Your task to perform on an android device: Empty the shopping cart on bestbuy.com. Search for dell xps on bestbuy.com, select the first entry, add it to the cart, then select checkout. Image 0: 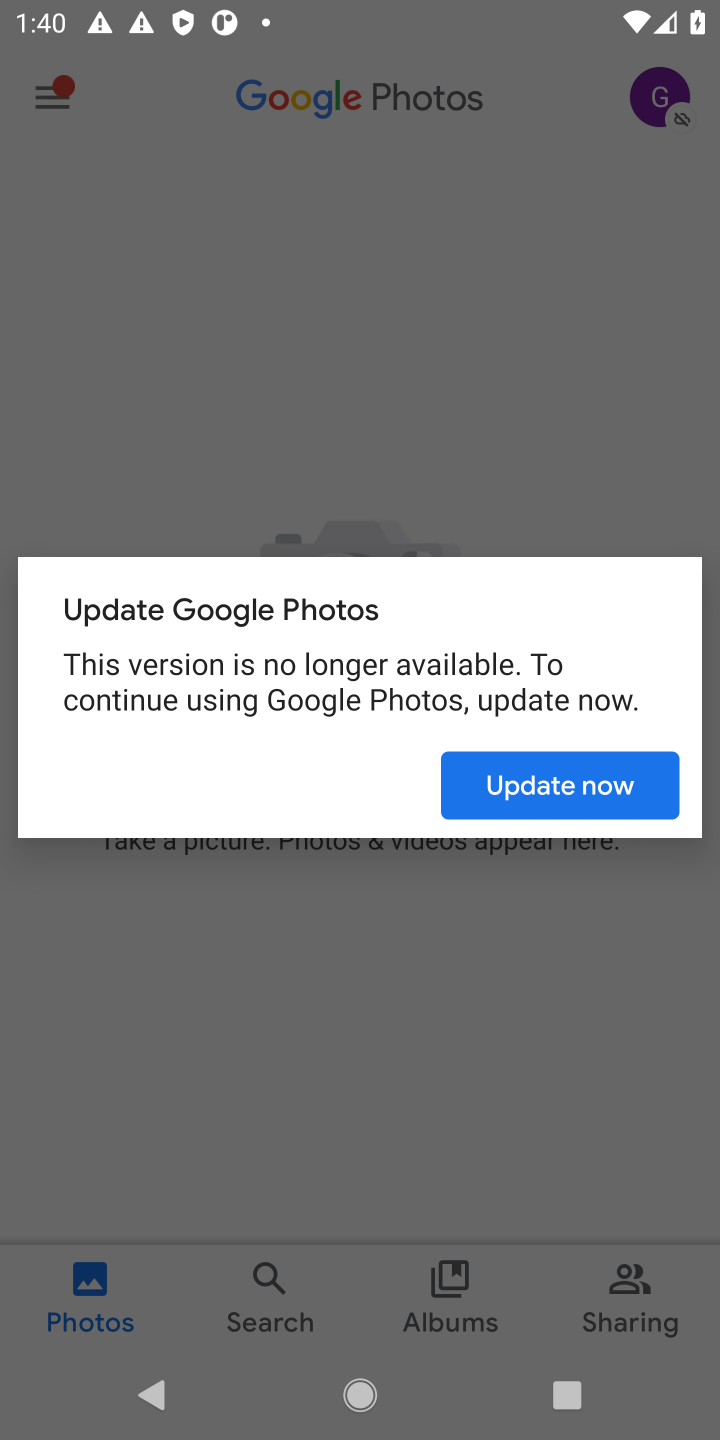
Step 0: press home button
Your task to perform on an android device: Empty the shopping cart on bestbuy.com. Search for dell xps on bestbuy.com, select the first entry, add it to the cart, then select checkout. Image 1: 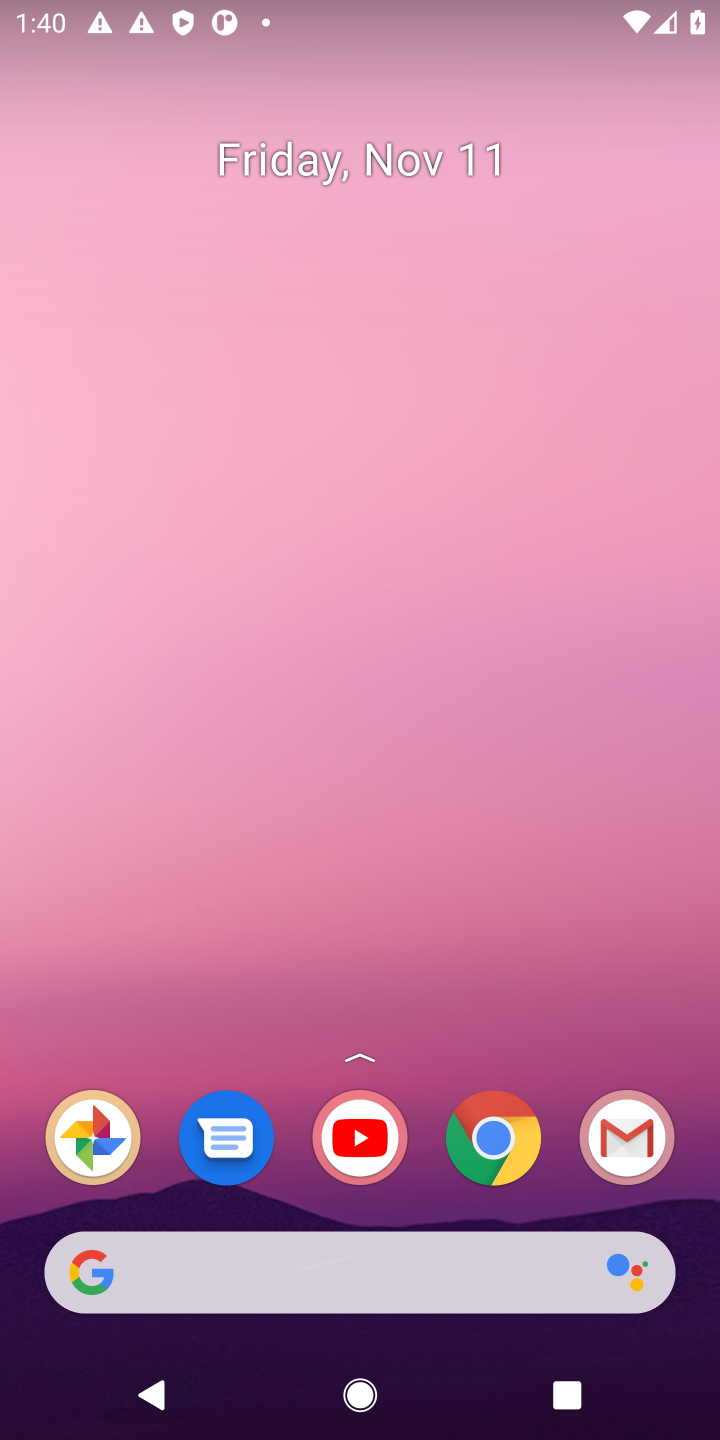
Step 1: click (504, 1114)
Your task to perform on an android device: Empty the shopping cart on bestbuy.com. Search for dell xps on bestbuy.com, select the first entry, add it to the cart, then select checkout. Image 2: 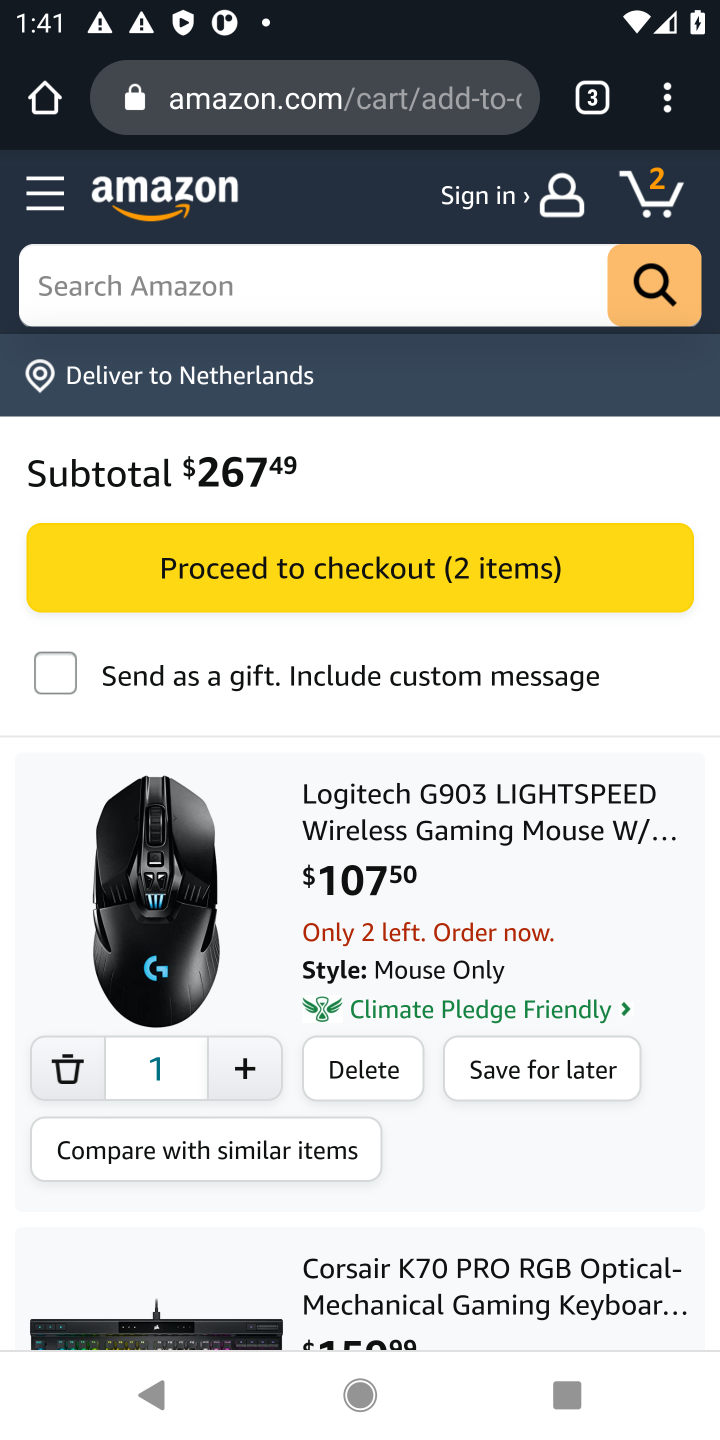
Step 2: click (604, 111)
Your task to perform on an android device: Empty the shopping cart on bestbuy.com. Search for dell xps on bestbuy.com, select the first entry, add it to the cart, then select checkout. Image 3: 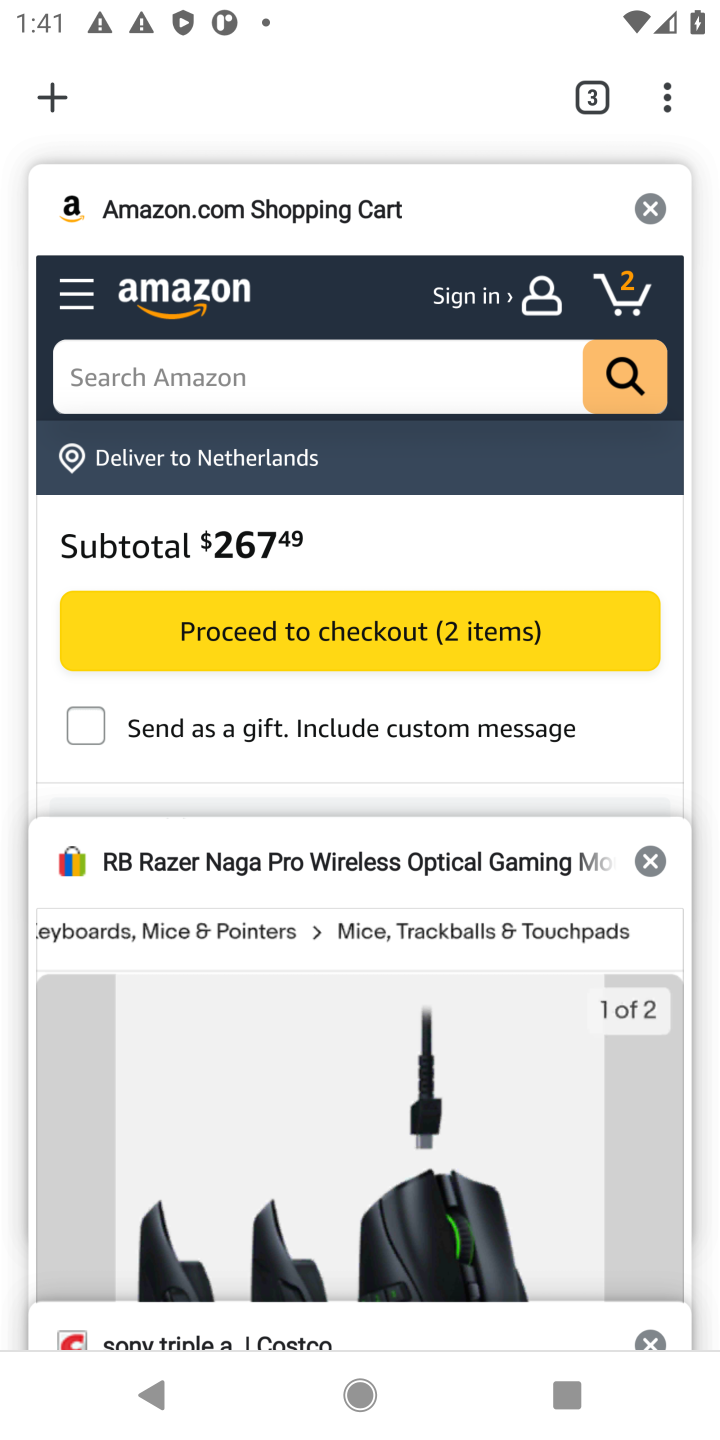
Step 3: click (61, 98)
Your task to perform on an android device: Empty the shopping cart on bestbuy.com. Search for dell xps on bestbuy.com, select the first entry, add it to the cart, then select checkout. Image 4: 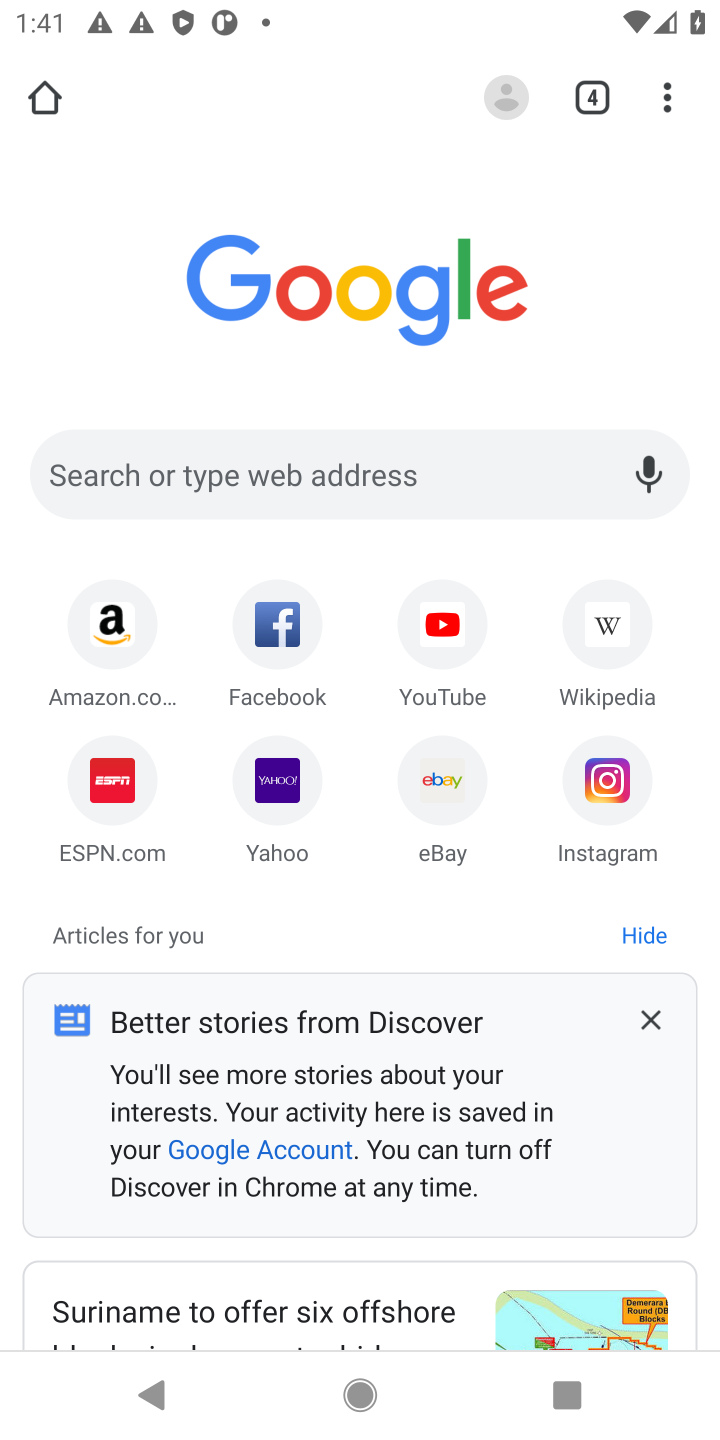
Step 4: click (237, 473)
Your task to perform on an android device: Empty the shopping cart on bestbuy.com. Search for dell xps on bestbuy.com, select the first entry, add it to the cart, then select checkout. Image 5: 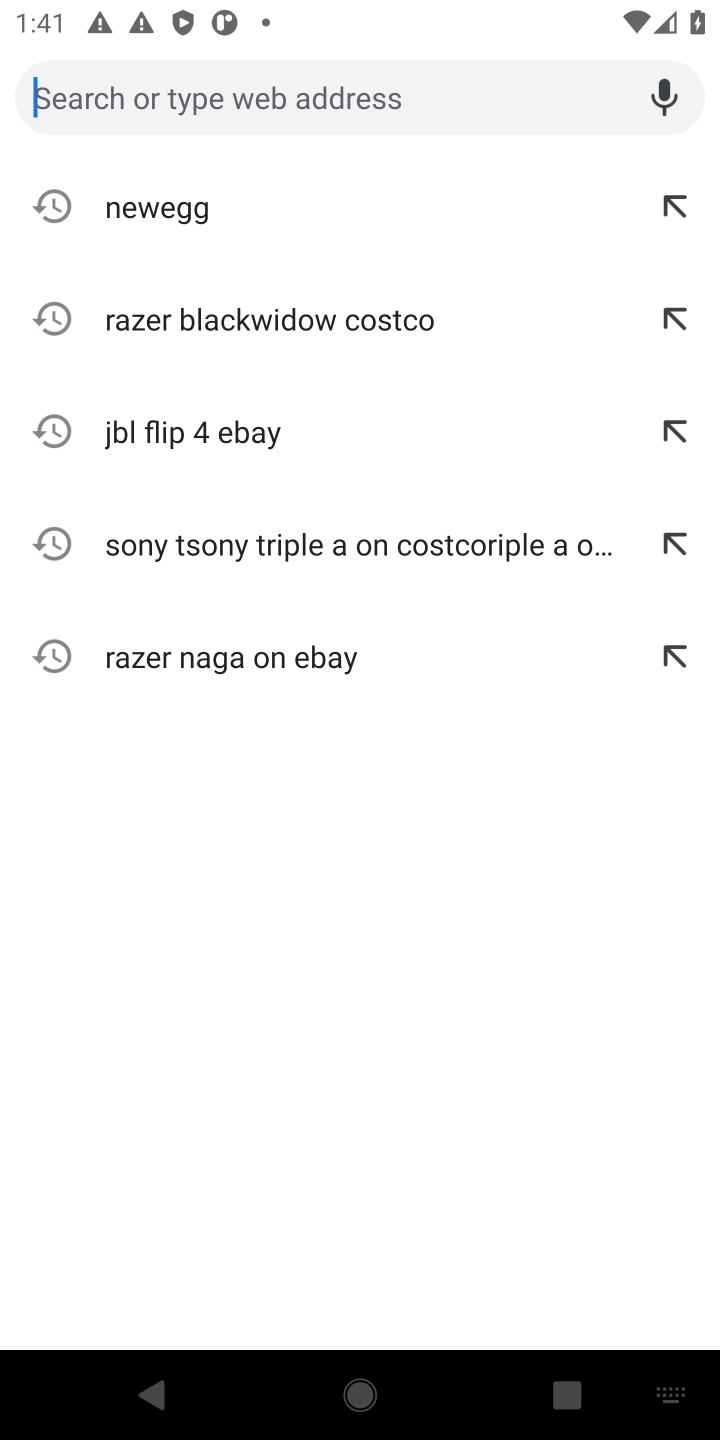
Step 5: type "bestbuy"
Your task to perform on an android device: Empty the shopping cart on bestbuy.com. Search for dell xps on bestbuy.com, select the first entry, add it to the cart, then select checkout. Image 6: 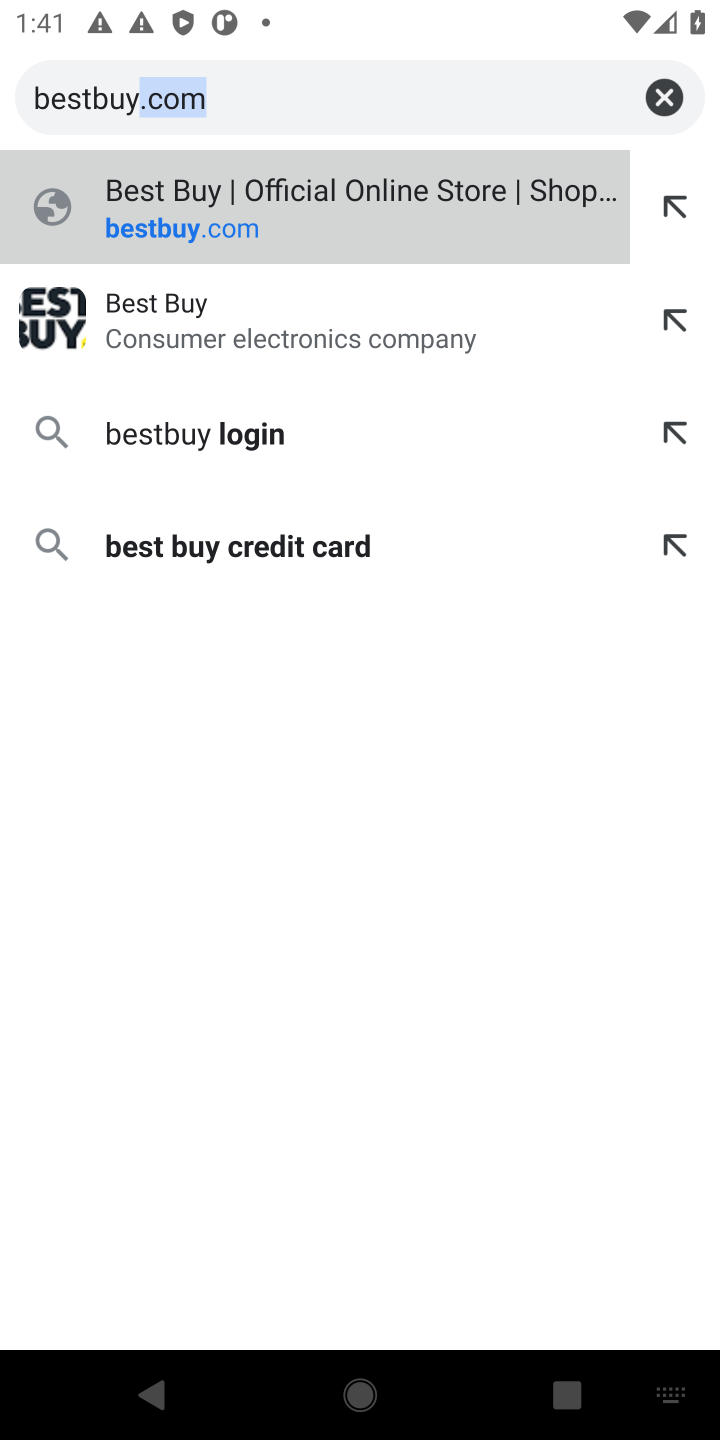
Step 6: click (252, 216)
Your task to perform on an android device: Empty the shopping cart on bestbuy.com. Search for dell xps on bestbuy.com, select the first entry, add it to the cart, then select checkout. Image 7: 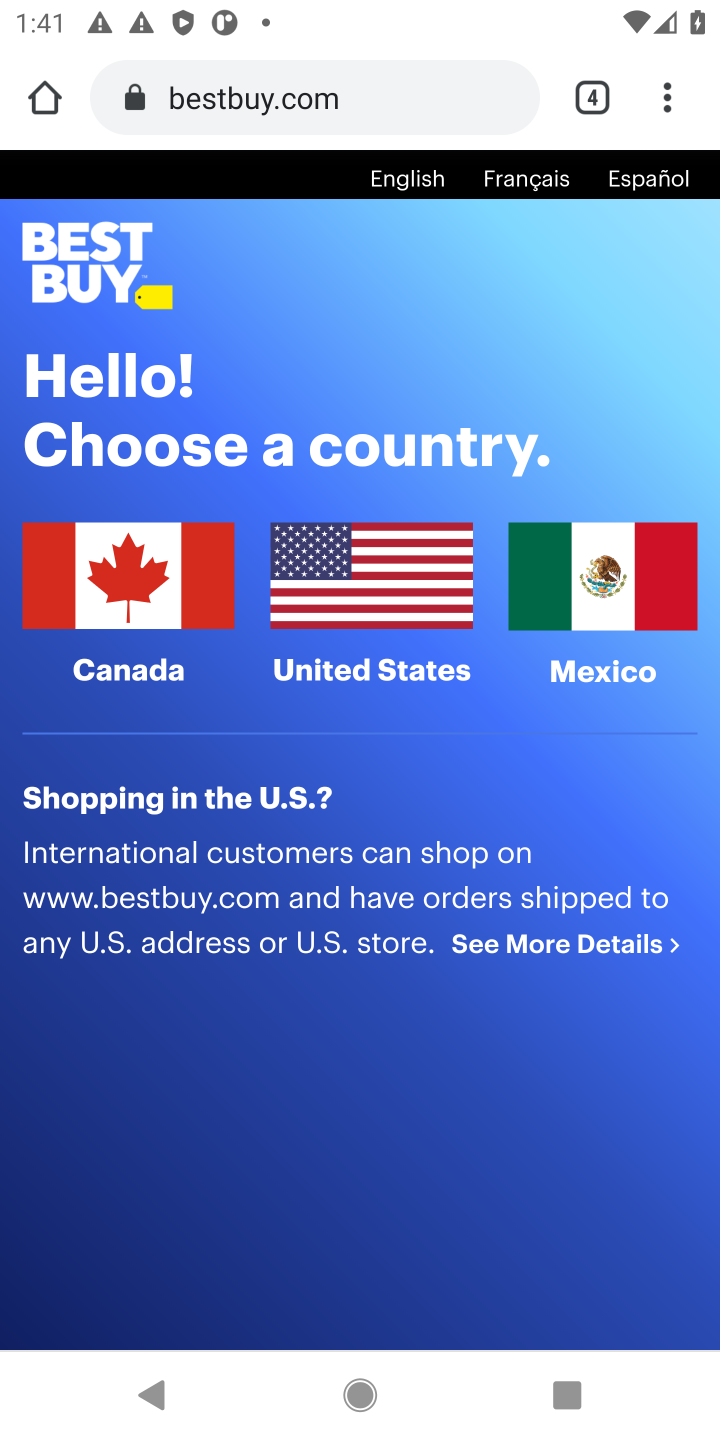
Step 7: click (378, 550)
Your task to perform on an android device: Empty the shopping cart on bestbuy.com. Search for dell xps on bestbuy.com, select the first entry, add it to the cart, then select checkout. Image 8: 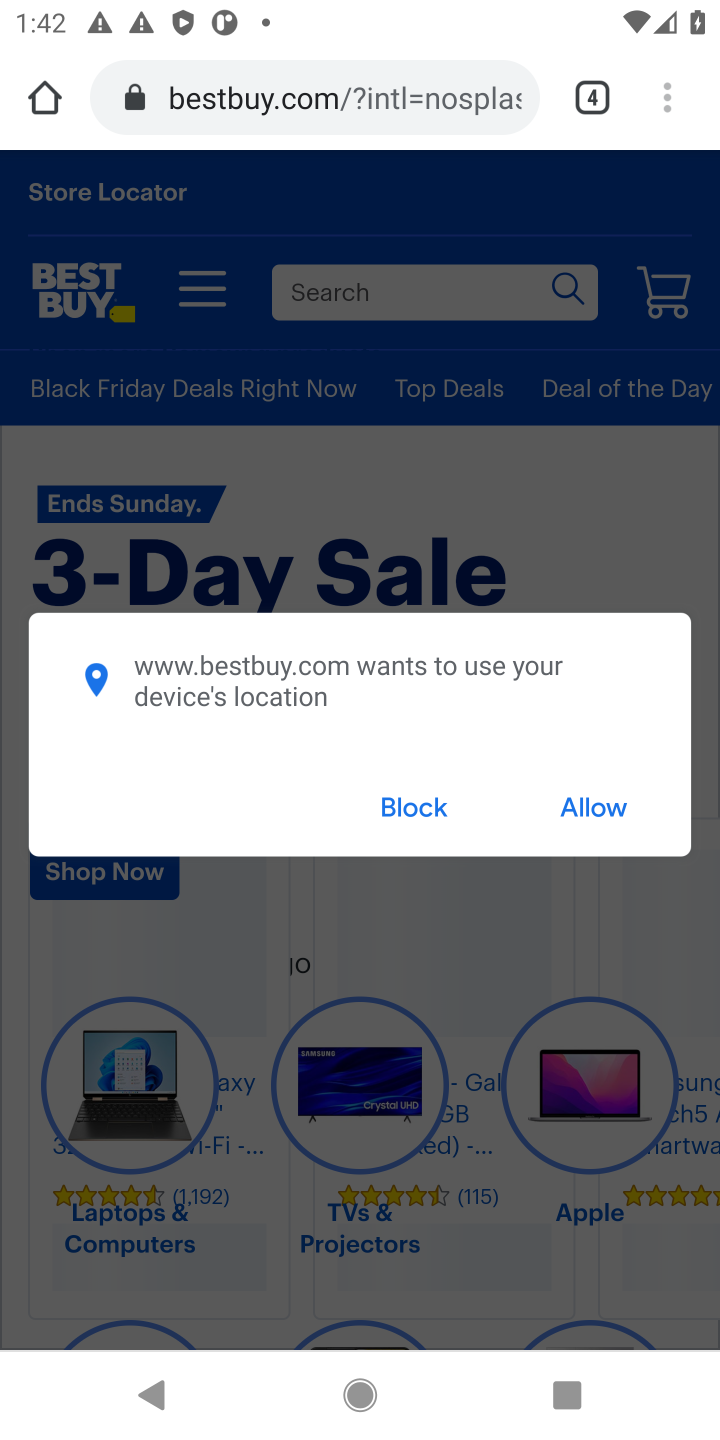
Step 8: click (406, 823)
Your task to perform on an android device: Empty the shopping cart on bestbuy.com. Search for dell xps on bestbuy.com, select the first entry, add it to the cart, then select checkout. Image 9: 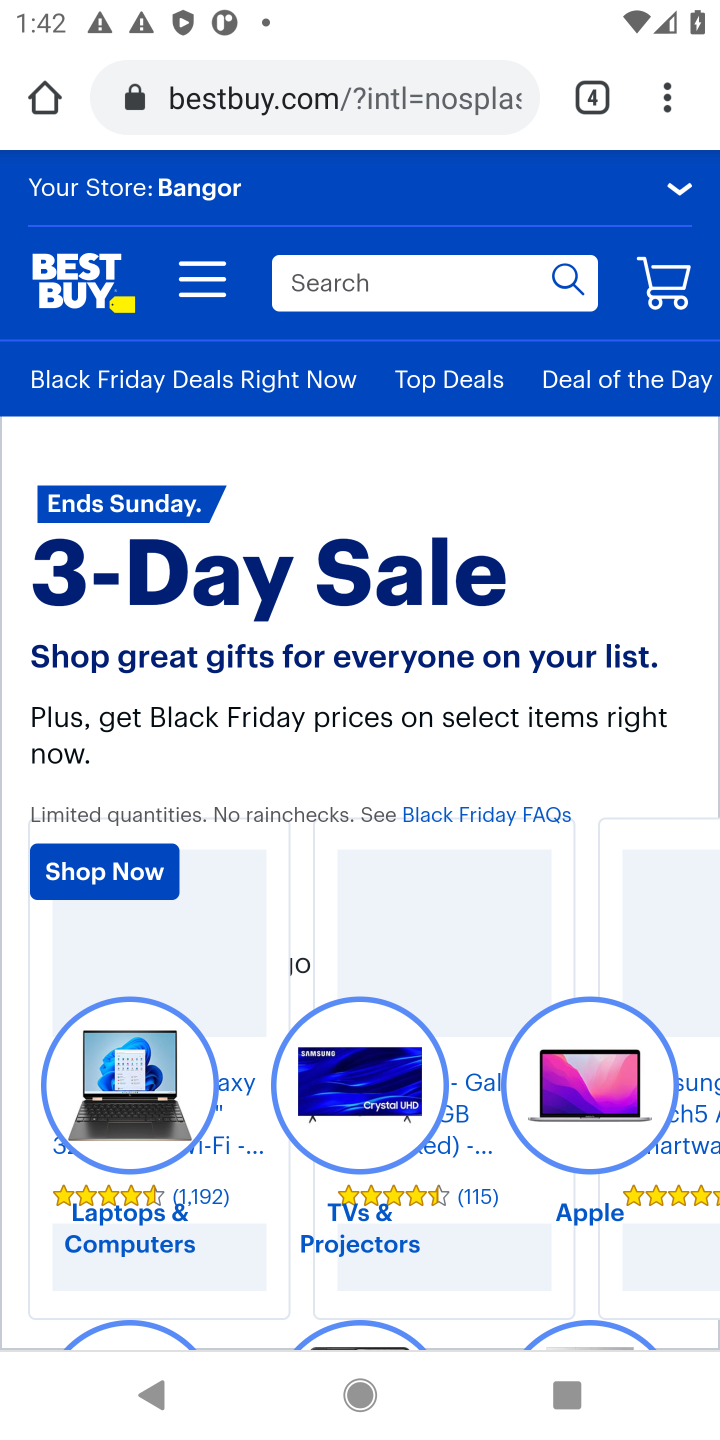
Step 9: click (366, 277)
Your task to perform on an android device: Empty the shopping cart on bestbuy.com. Search for dell xps on bestbuy.com, select the first entry, add it to the cart, then select checkout. Image 10: 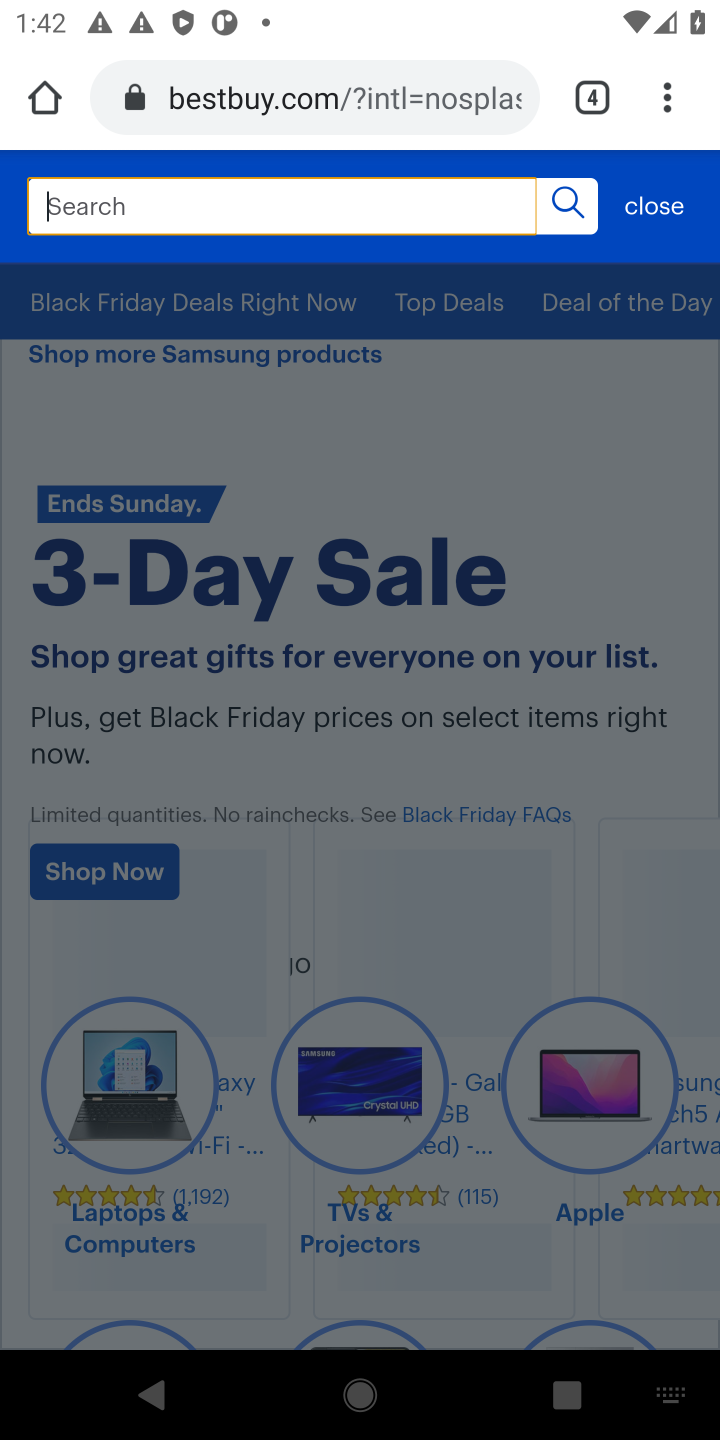
Step 10: type "dell xps"
Your task to perform on an android device: Empty the shopping cart on bestbuy.com. Search for dell xps on bestbuy.com, select the first entry, add it to the cart, then select checkout. Image 11: 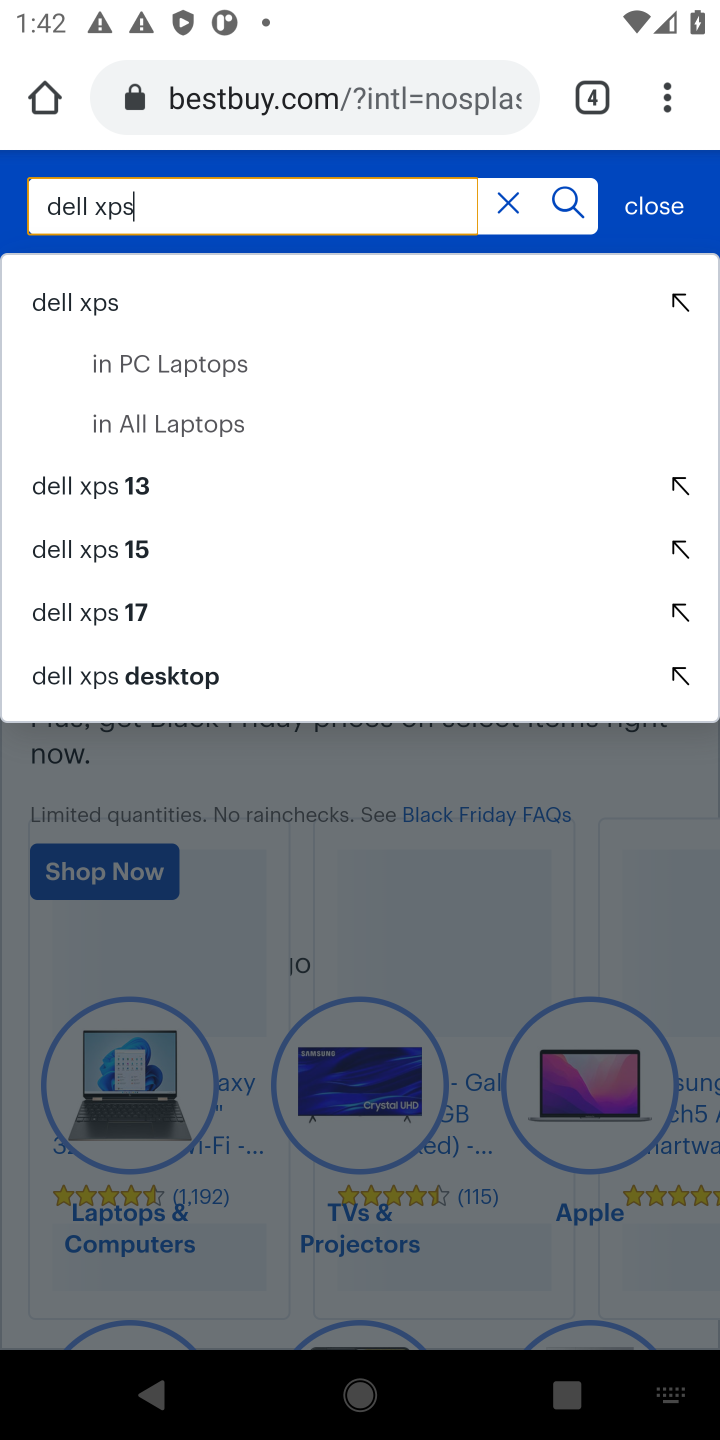
Step 11: click (100, 298)
Your task to perform on an android device: Empty the shopping cart on bestbuy.com. Search for dell xps on bestbuy.com, select the first entry, add it to the cart, then select checkout. Image 12: 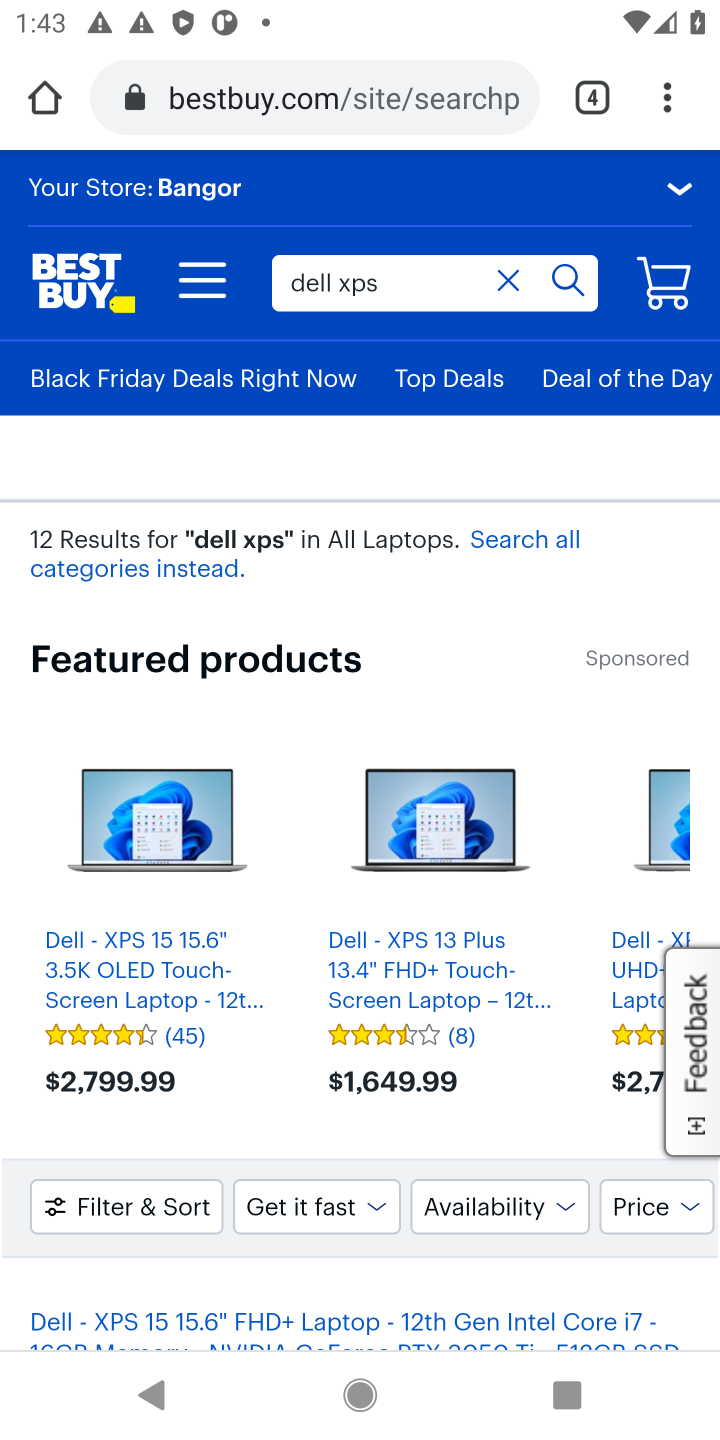
Step 12: drag from (273, 1104) to (339, 505)
Your task to perform on an android device: Empty the shopping cart on bestbuy.com. Search for dell xps on bestbuy.com, select the first entry, add it to the cart, then select checkout. Image 13: 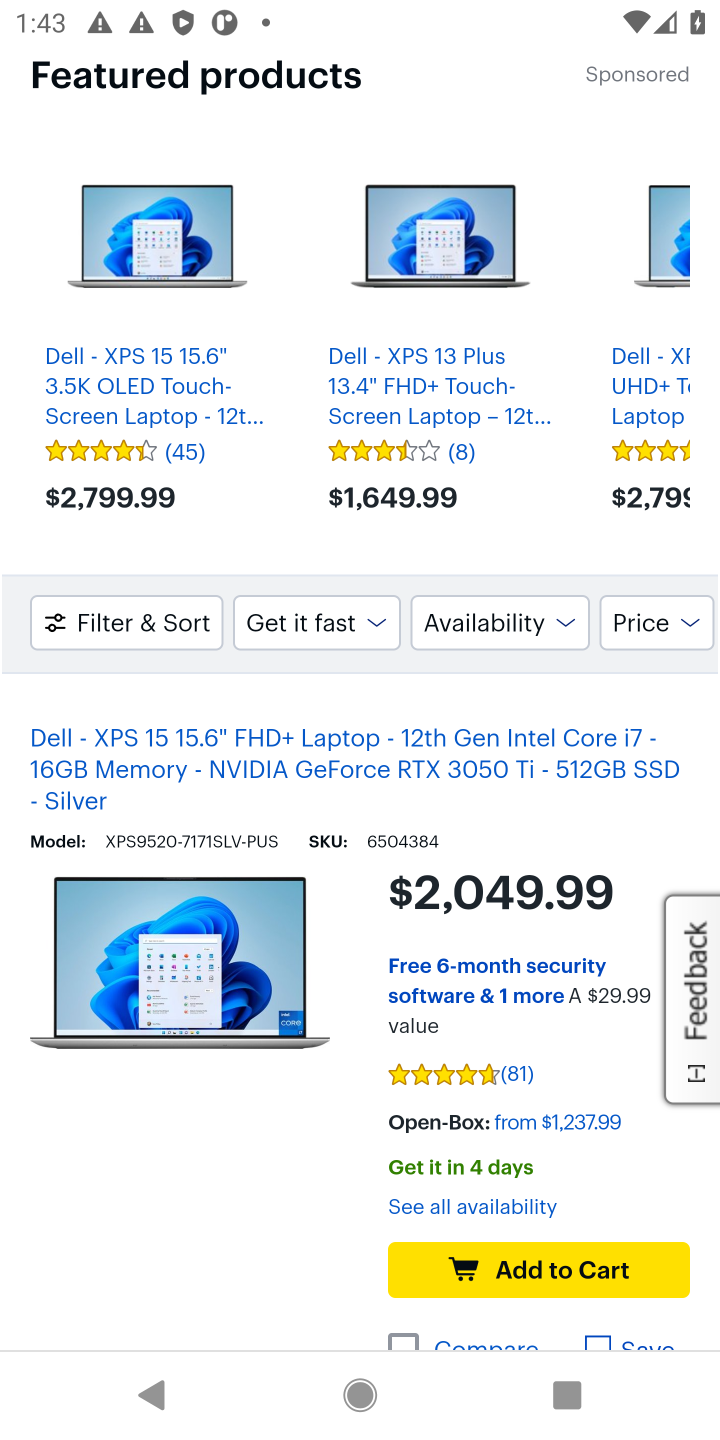
Step 13: click (548, 1263)
Your task to perform on an android device: Empty the shopping cart on bestbuy.com. Search for dell xps on bestbuy.com, select the first entry, add it to the cart, then select checkout. Image 14: 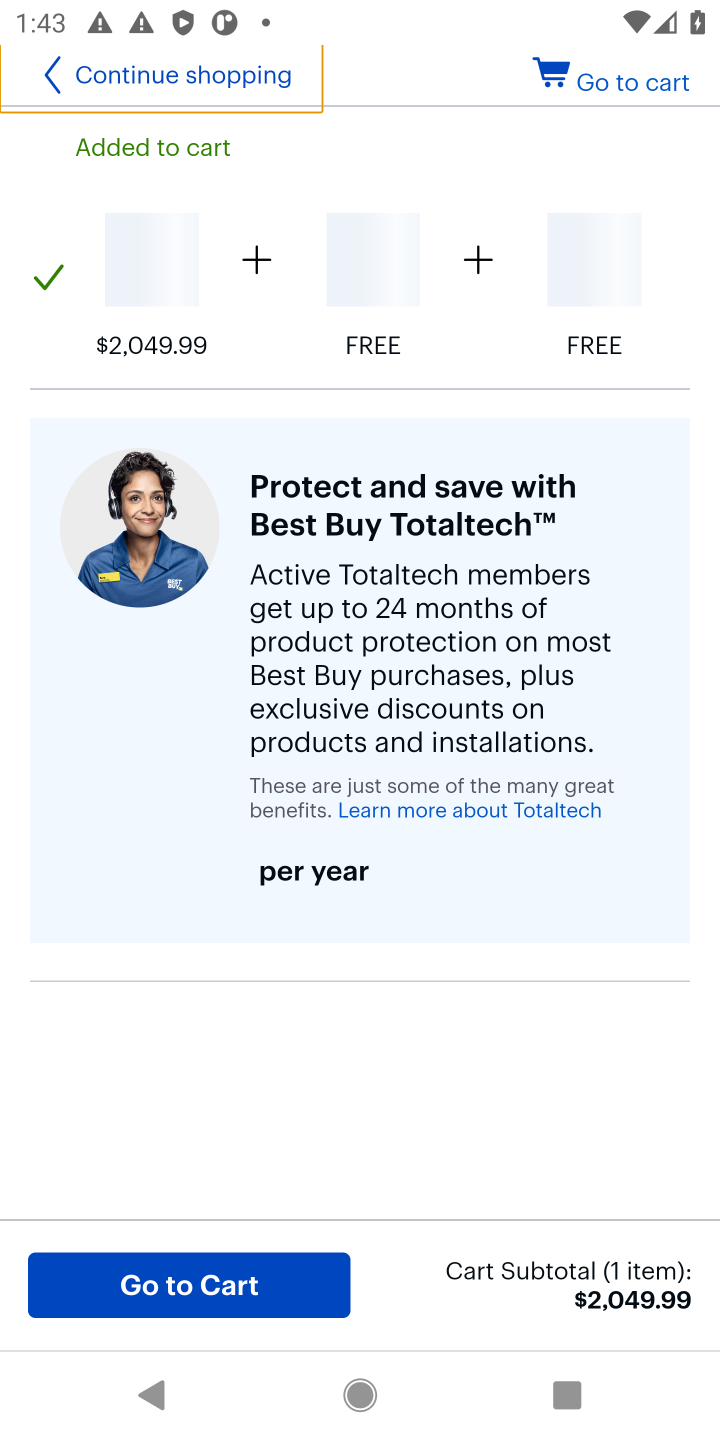
Step 14: task complete